Your task to perform on an android device: toggle pop-ups in chrome Image 0: 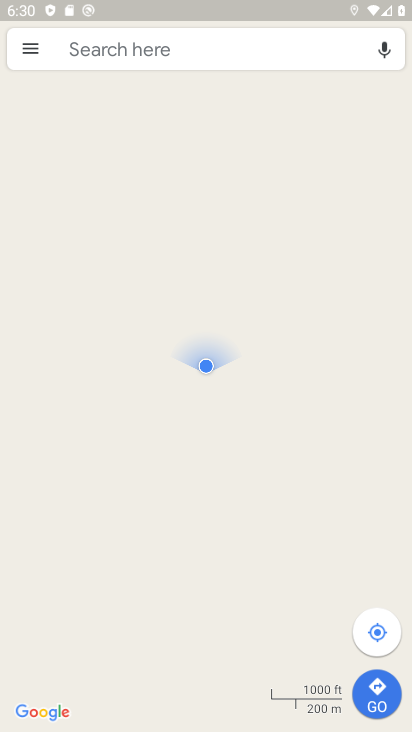
Step 0: press home button
Your task to perform on an android device: toggle pop-ups in chrome Image 1: 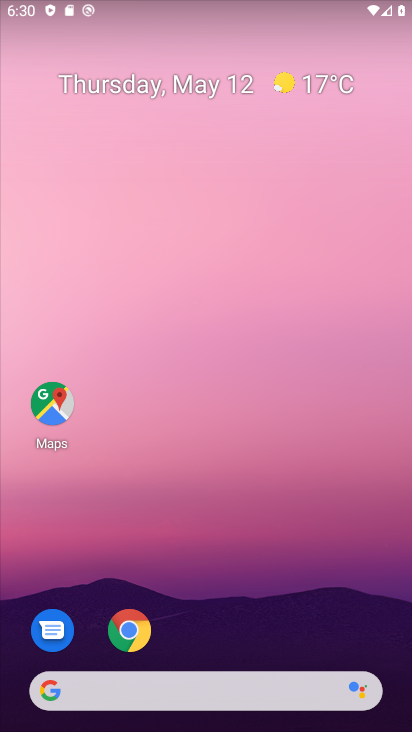
Step 1: drag from (338, 633) to (341, 33)
Your task to perform on an android device: toggle pop-ups in chrome Image 2: 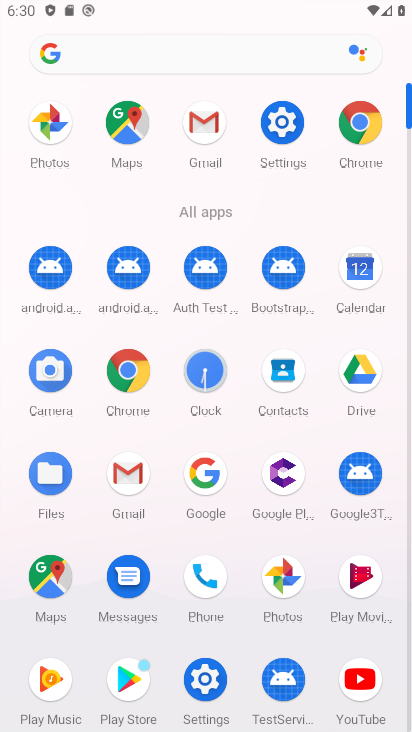
Step 2: click (130, 358)
Your task to perform on an android device: toggle pop-ups in chrome Image 3: 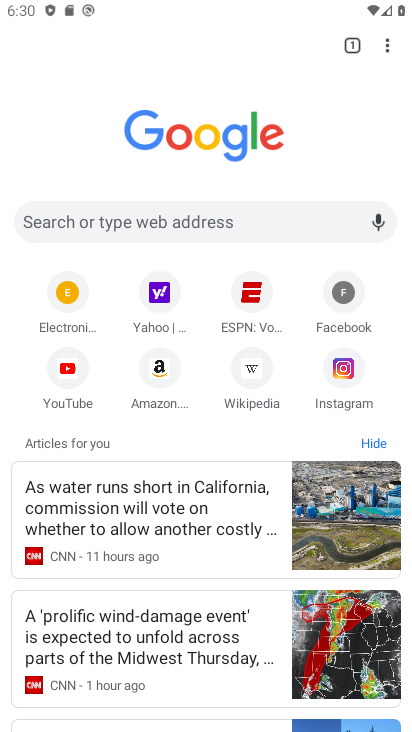
Step 3: click (390, 49)
Your task to perform on an android device: toggle pop-ups in chrome Image 4: 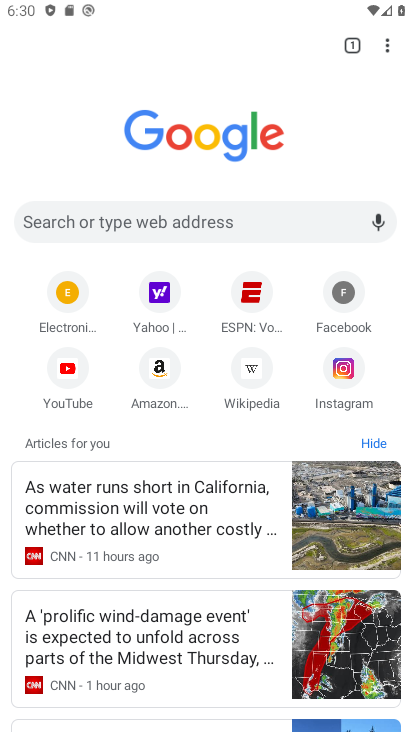
Step 4: click (391, 41)
Your task to perform on an android device: toggle pop-ups in chrome Image 5: 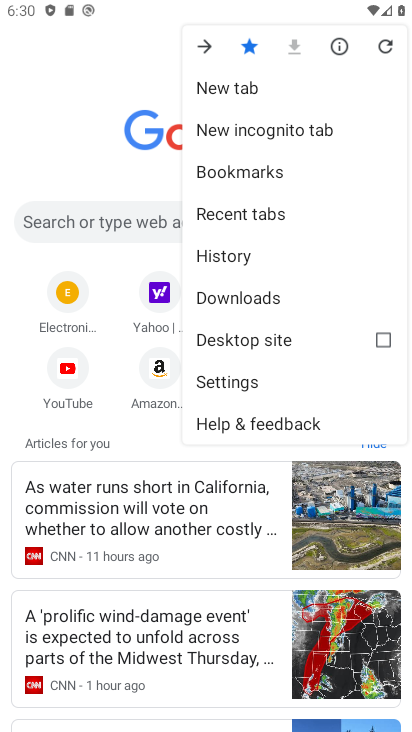
Step 5: click (250, 381)
Your task to perform on an android device: toggle pop-ups in chrome Image 6: 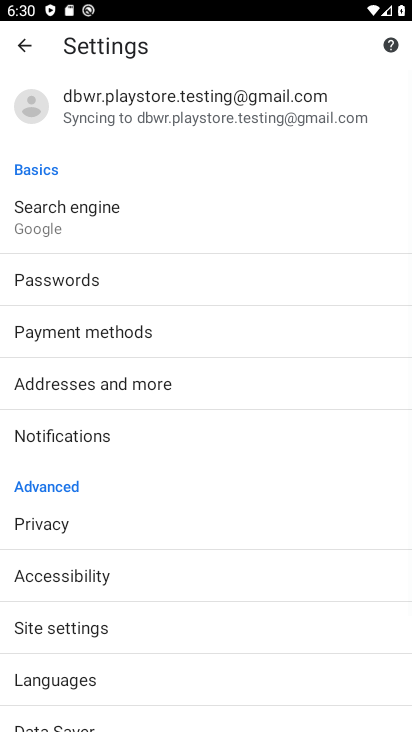
Step 6: click (90, 632)
Your task to perform on an android device: toggle pop-ups in chrome Image 7: 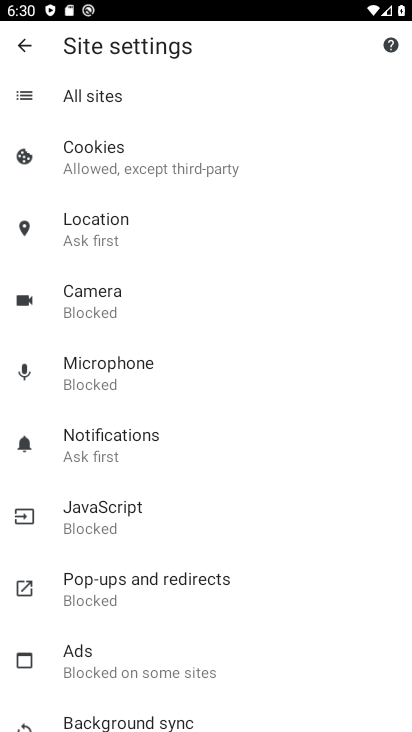
Step 7: click (179, 602)
Your task to perform on an android device: toggle pop-ups in chrome Image 8: 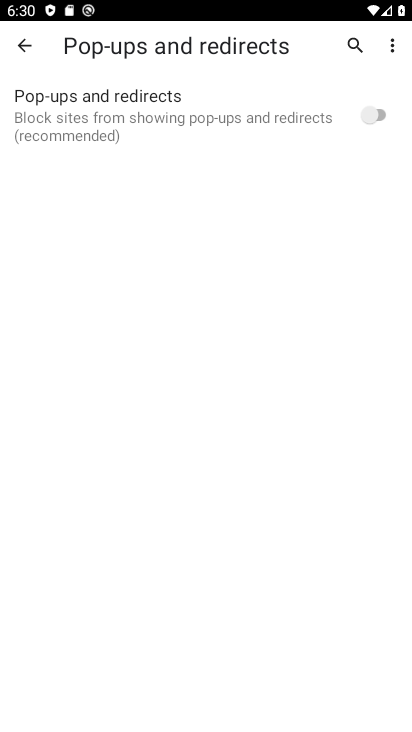
Step 8: click (325, 111)
Your task to perform on an android device: toggle pop-ups in chrome Image 9: 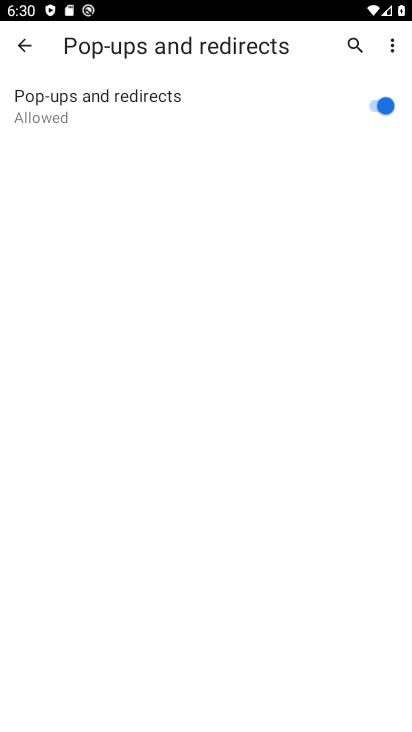
Step 9: task complete